Your task to perform on an android device: Is it going to rain this weekend? Image 0: 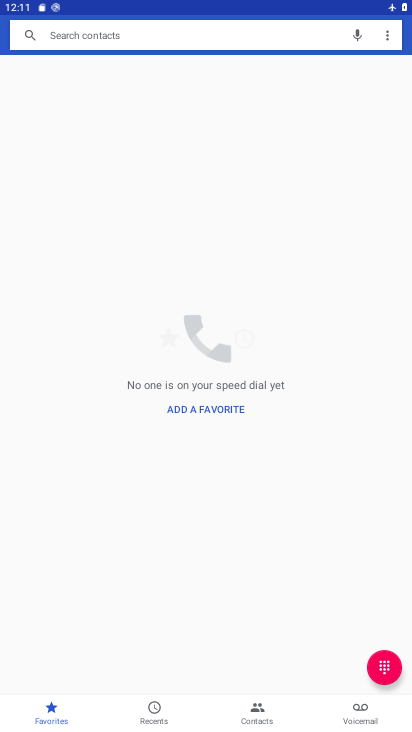
Step 0: press home button
Your task to perform on an android device: Is it going to rain this weekend? Image 1: 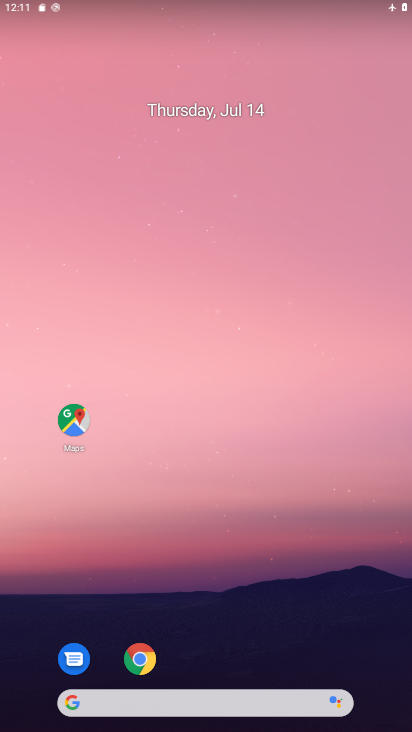
Step 1: drag from (289, 595) to (292, 63)
Your task to perform on an android device: Is it going to rain this weekend? Image 2: 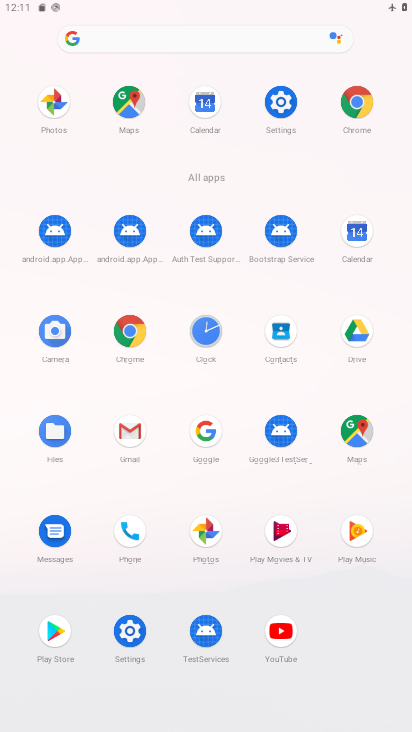
Step 2: click (355, 101)
Your task to perform on an android device: Is it going to rain this weekend? Image 3: 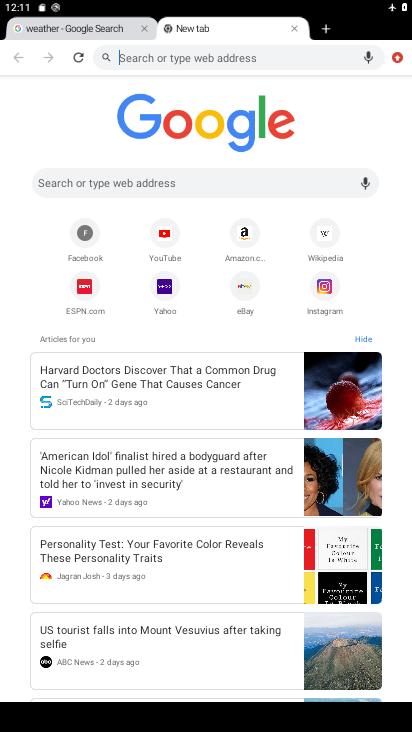
Step 3: click (261, 55)
Your task to perform on an android device: Is it going to rain this weekend? Image 4: 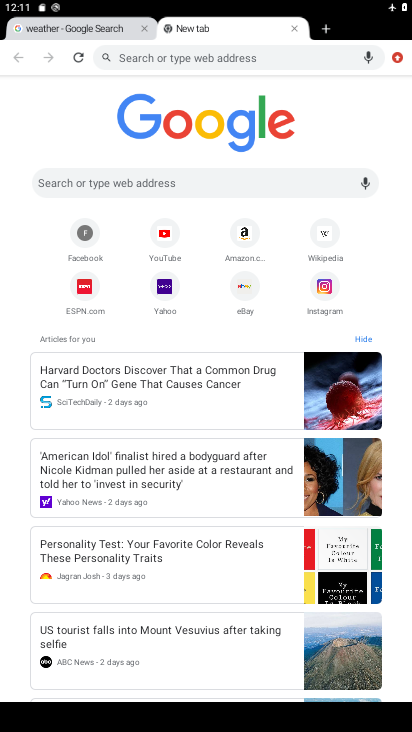
Step 4: type "weather"
Your task to perform on an android device: Is it going to rain this weekend? Image 5: 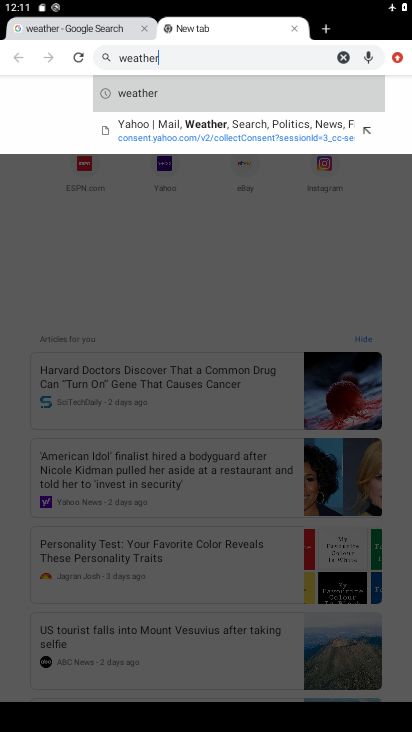
Step 5: click (162, 92)
Your task to perform on an android device: Is it going to rain this weekend? Image 6: 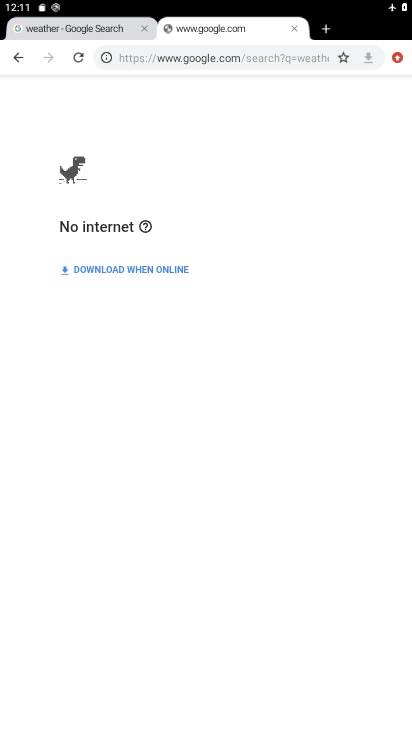
Step 6: task complete